Your task to perform on an android device: open a bookmark in the chrome app Image 0: 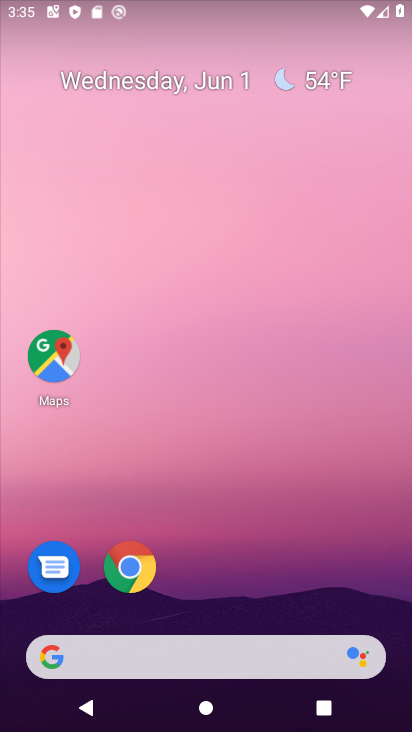
Step 0: click (123, 559)
Your task to perform on an android device: open a bookmark in the chrome app Image 1: 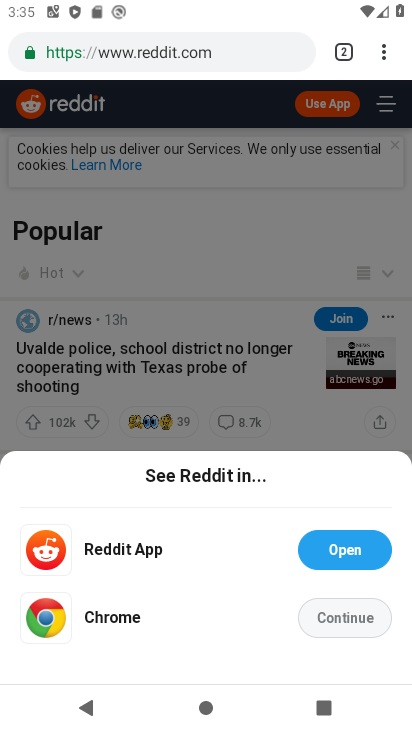
Step 1: click (380, 49)
Your task to perform on an android device: open a bookmark in the chrome app Image 2: 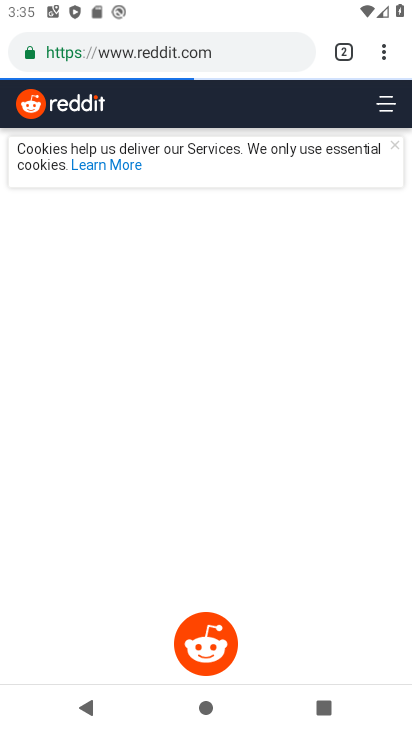
Step 2: click (385, 53)
Your task to perform on an android device: open a bookmark in the chrome app Image 3: 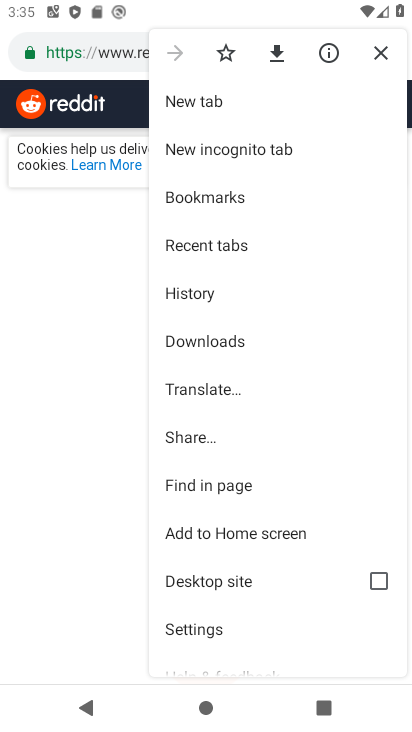
Step 3: click (385, 53)
Your task to perform on an android device: open a bookmark in the chrome app Image 4: 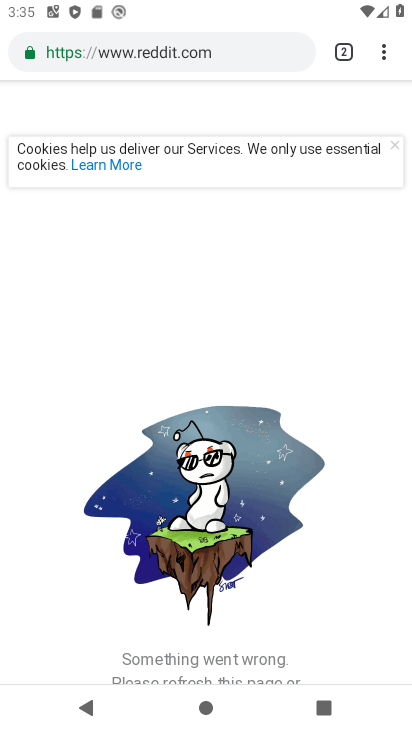
Step 4: click (386, 55)
Your task to perform on an android device: open a bookmark in the chrome app Image 5: 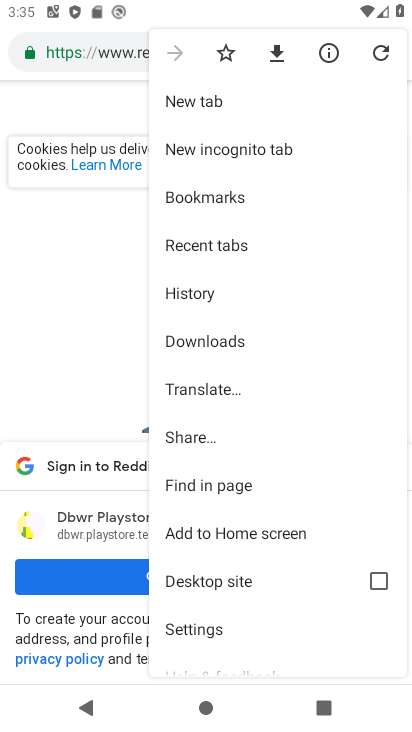
Step 5: click (215, 206)
Your task to perform on an android device: open a bookmark in the chrome app Image 6: 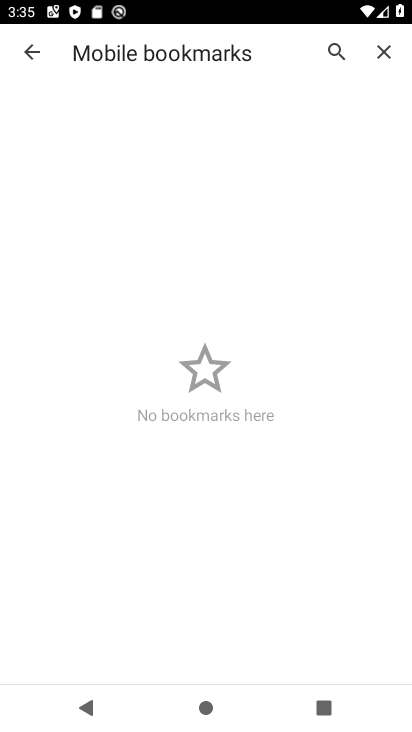
Step 6: task complete